Your task to perform on an android device: turn off location Image 0: 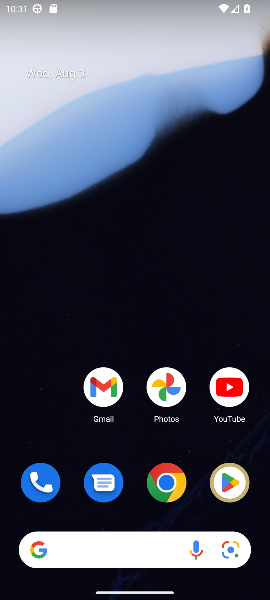
Step 0: task complete